Your task to perform on an android device: Play the last video I watched on Youtube Image 0: 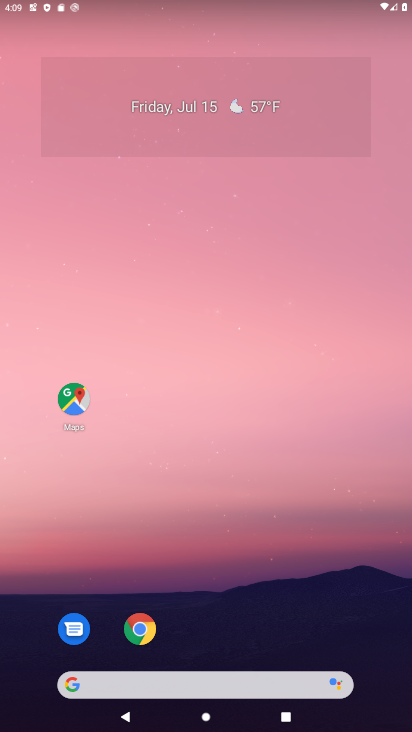
Step 0: drag from (260, 640) to (389, 83)
Your task to perform on an android device: Play the last video I watched on Youtube Image 1: 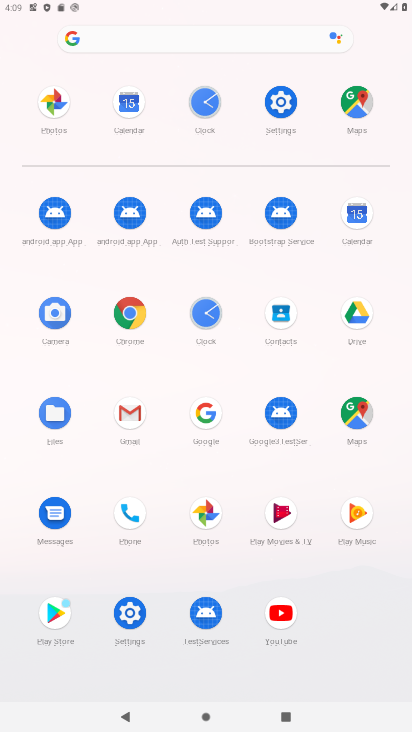
Step 1: click (280, 635)
Your task to perform on an android device: Play the last video I watched on Youtube Image 2: 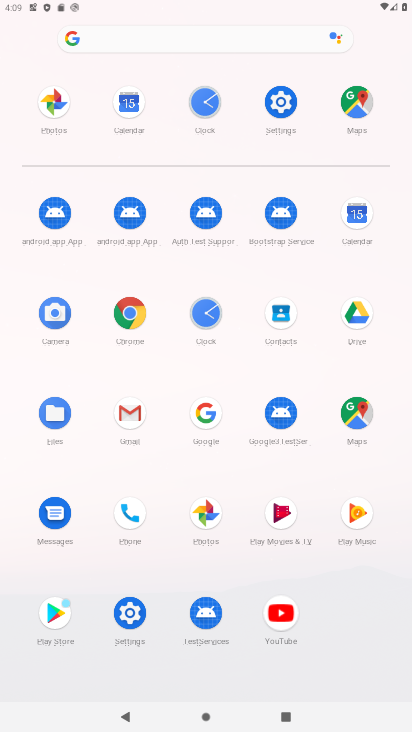
Step 2: click (280, 634)
Your task to perform on an android device: Play the last video I watched on Youtube Image 3: 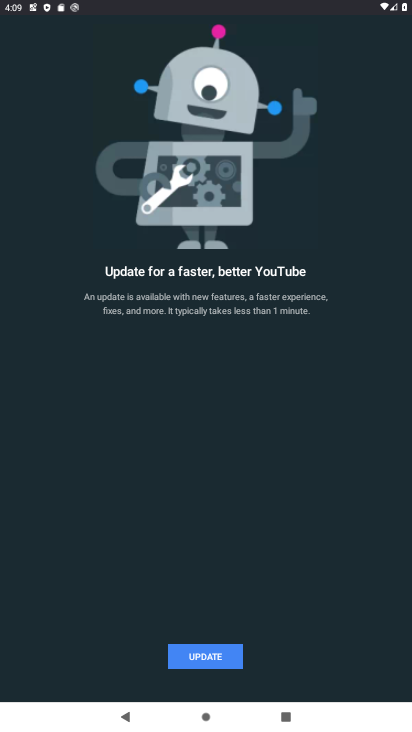
Step 3: click (193, 654)
Your task to perform on an android device: Play the last video I watched on Youtube Image 4: 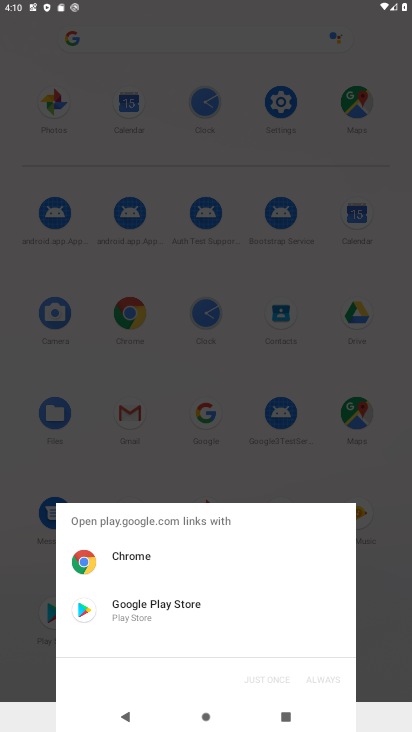
Step 4: click (165, 612)
Your task to perform on an android device: Play the last video I watched on Youtube Image 5: 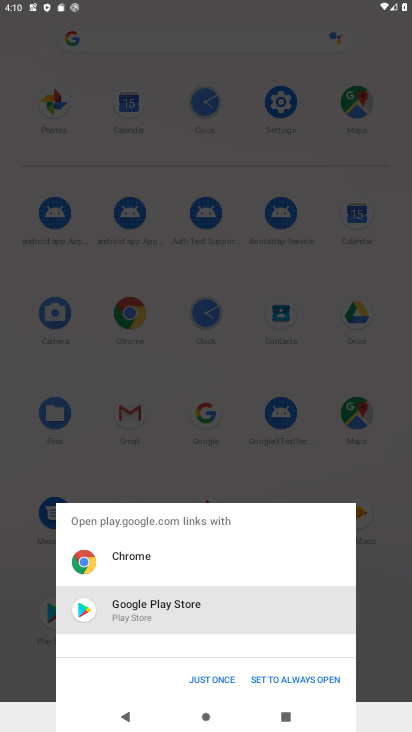
Step 5: click (210, 679)
Your task to perform on an android device: Play the last video I watched on Youtube Image 6: 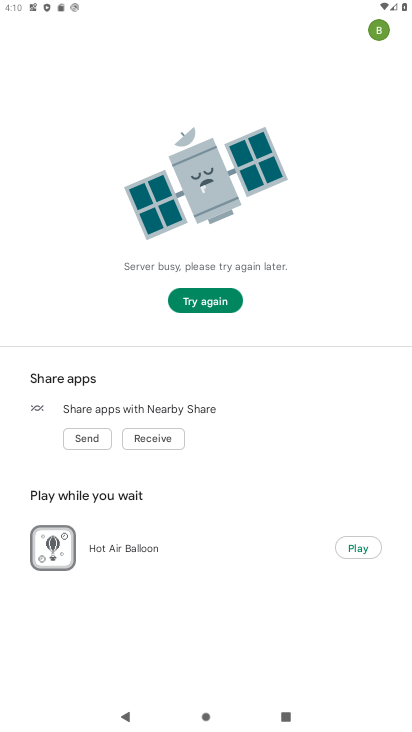
Step 6: click (218, 303)
Your task to perform on an android device: Play the last video I watched on Youtube Image 7: 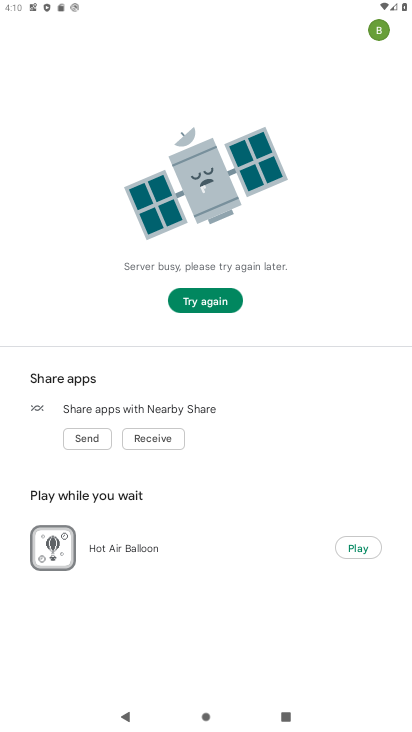
Step 7: click (218, 303)
Your task to perform on an android device: Play the last video I watched on Youtube Image 8: 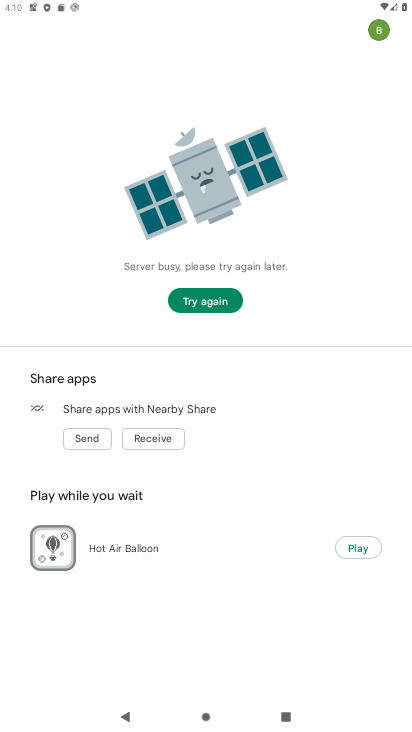
Step 8: task complete